Your task to perform on an android device: What's the latest news in cosmology? Image 0: 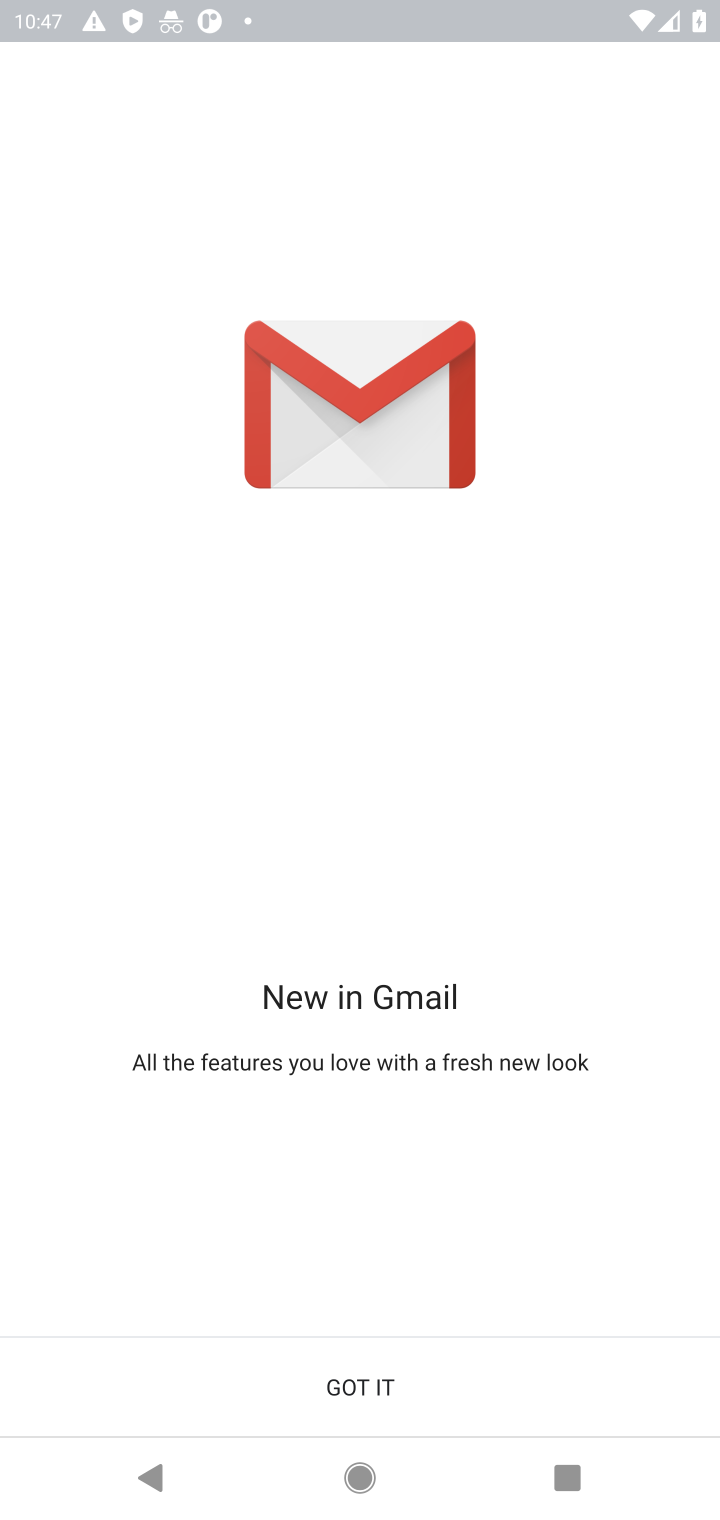
Step 0: press home button
Your task to perform on an android device: What's the latest news in cosmology? Image 1: 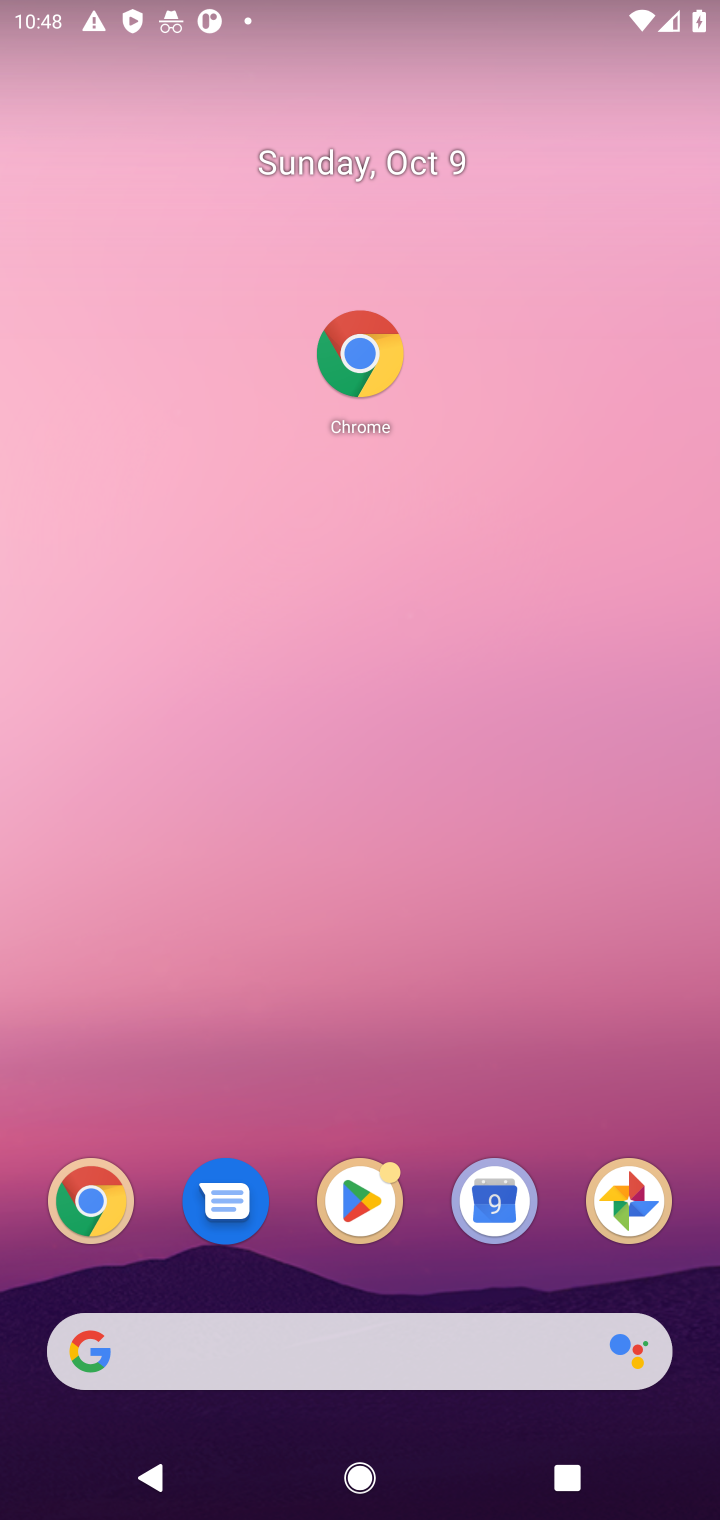
Step 1: click (79, 1190)
Your task to perform on an android device: What's the latest news in cosmology? Image 2: 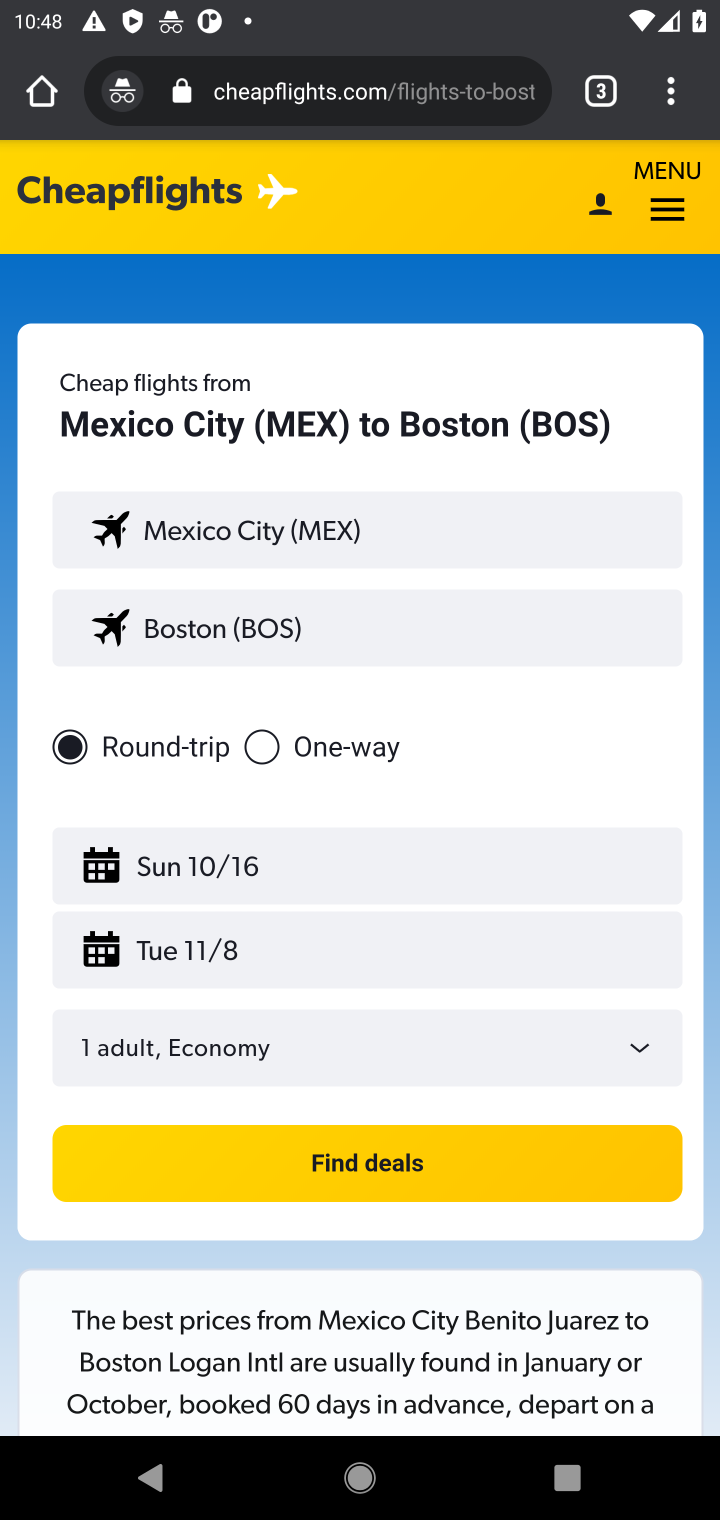
Step 2: click (343, 101)
Your task to perform on an android device: What's the latest news in cosmology? Image 3: 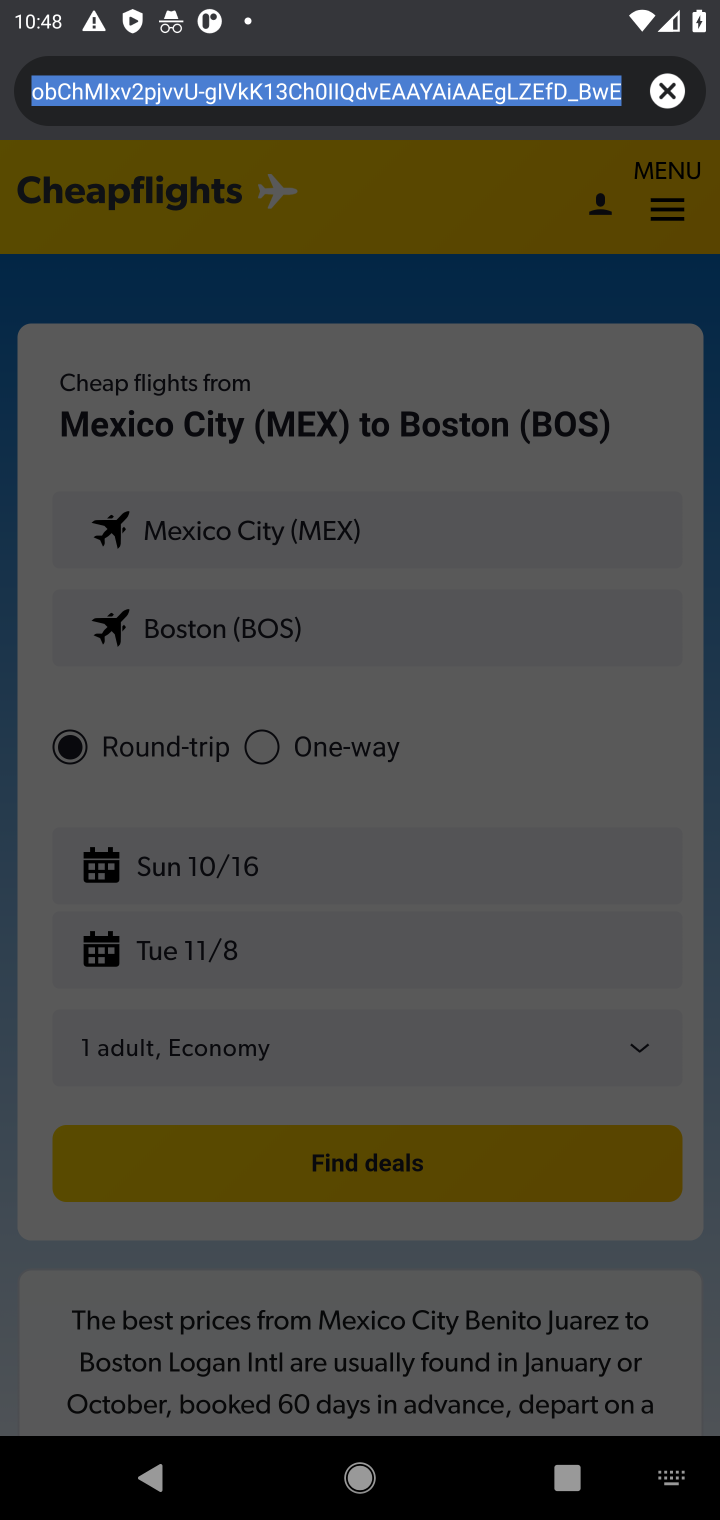
Step 3: type "What's the latest news in cosmology?"
Your task to perform on an android device: What's the latest news in cosmology? Image 4: 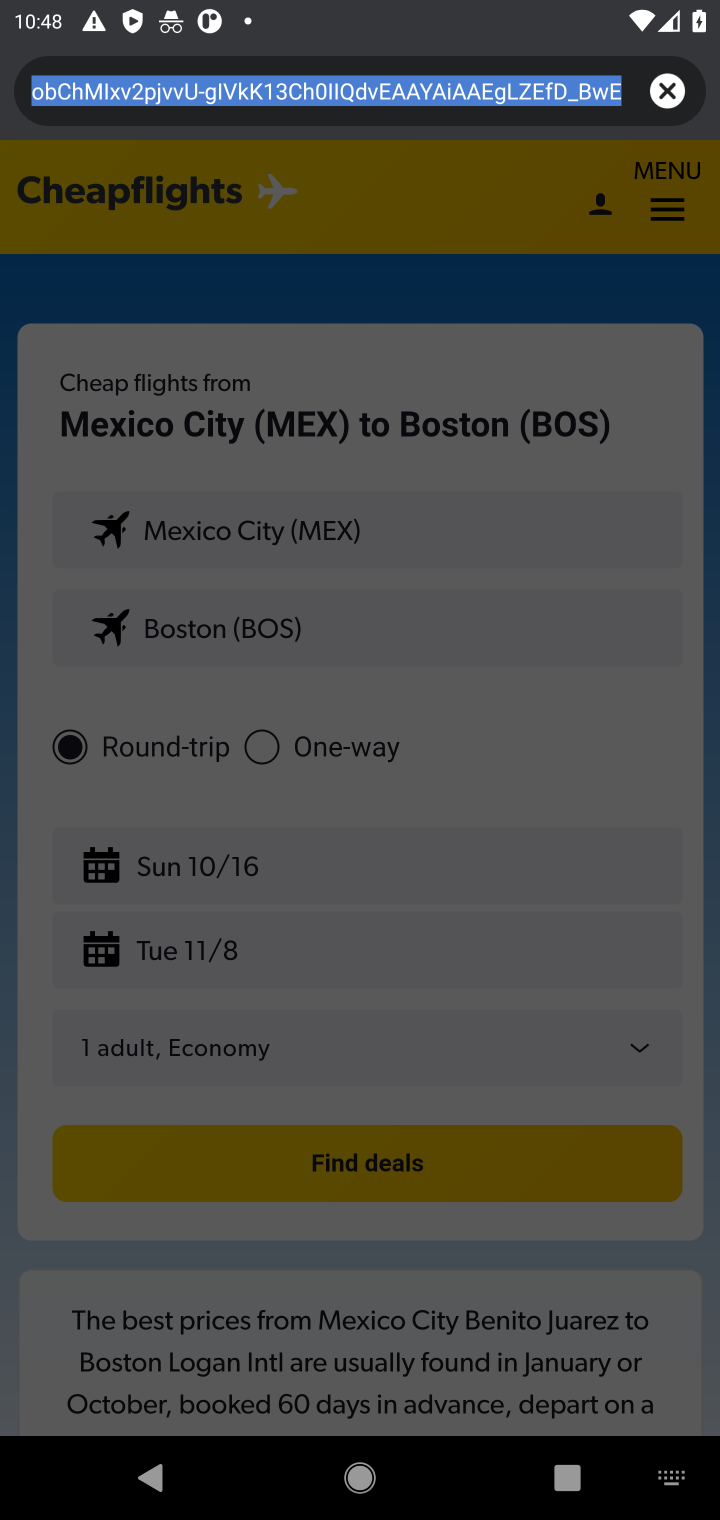
Step 4: click (353, 81)
Your task to perform on an android device: What's the latest news in cosmology? Image 5: 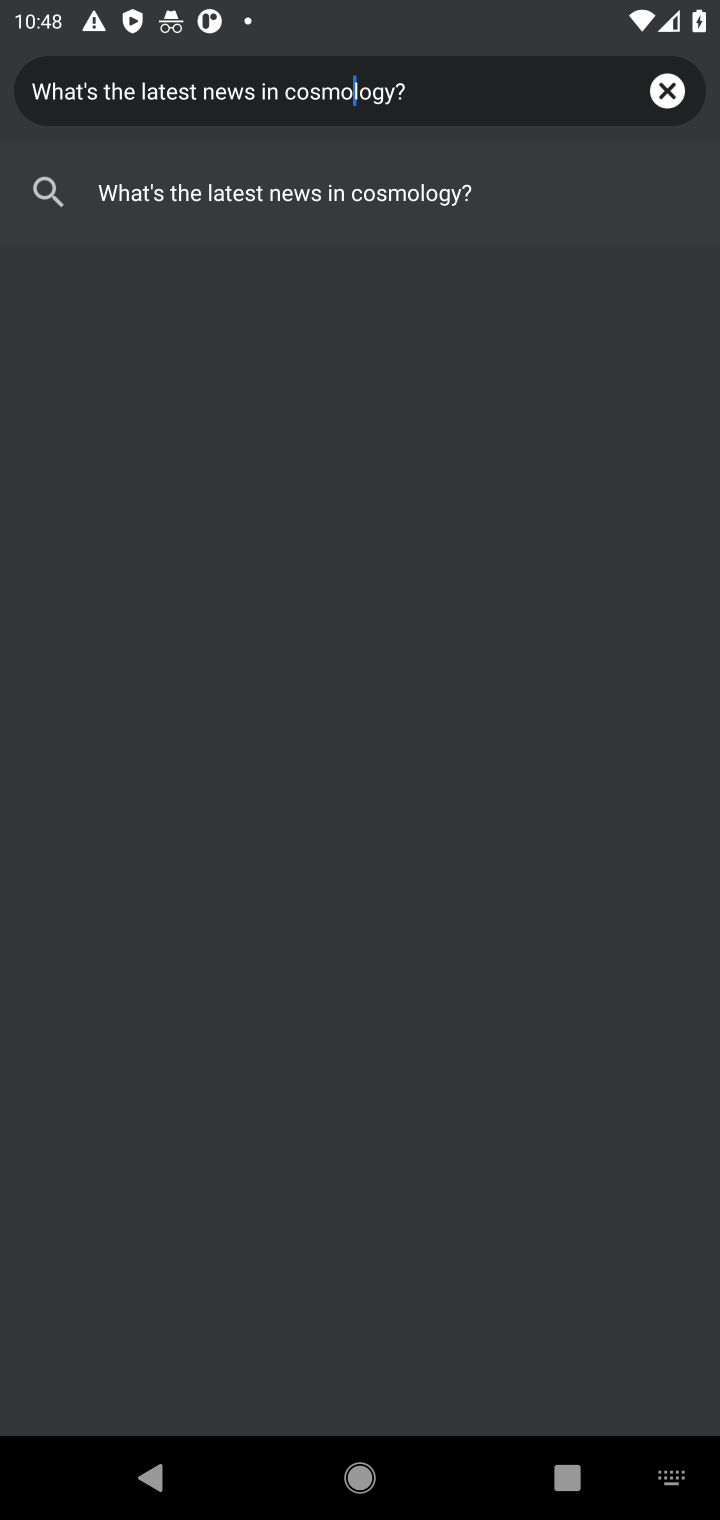
Step 5: click (380, 202)
Your task to perform on an android device: What's the latest news in cosmology? Image 6: 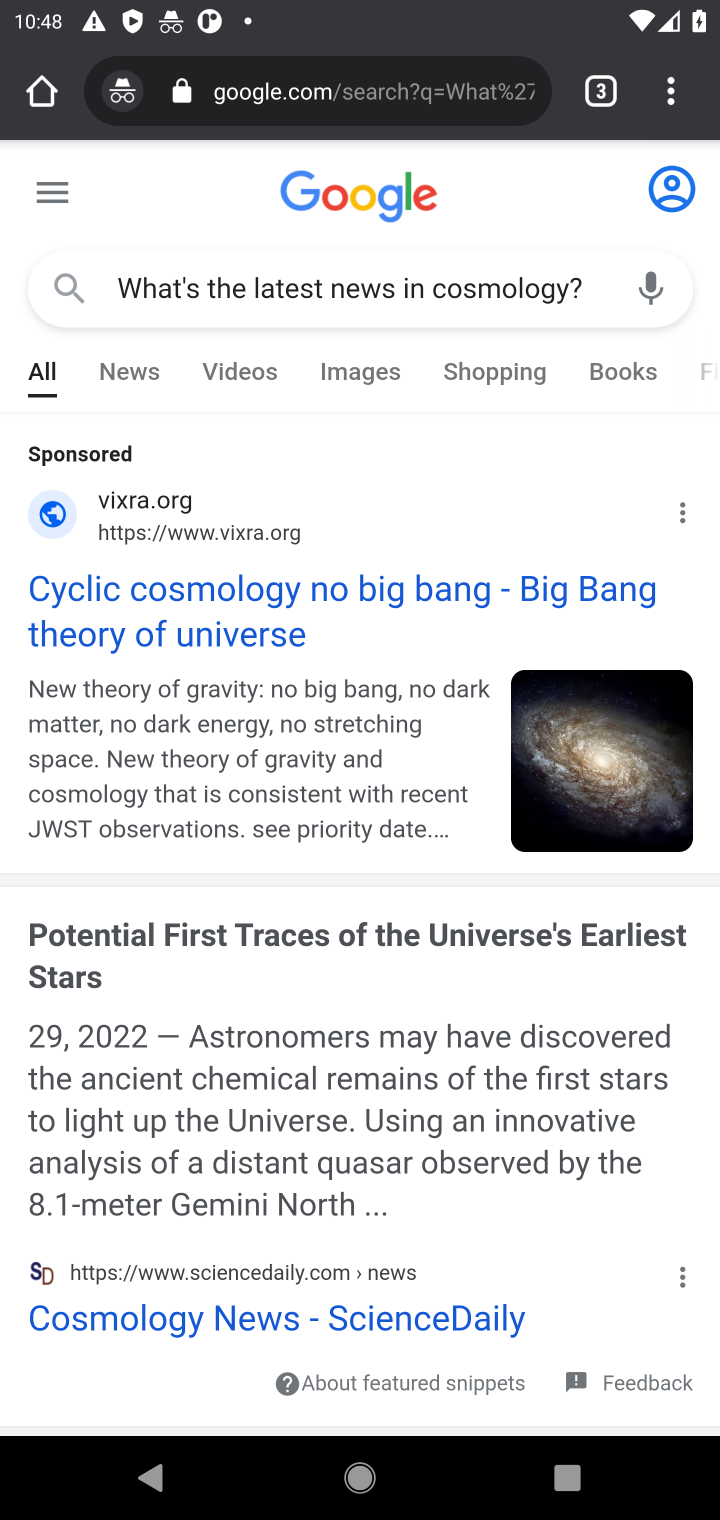
Step 6: click (310, 631)
Your task to perform on an android device: What's the latest news in cosmology? Image 7: 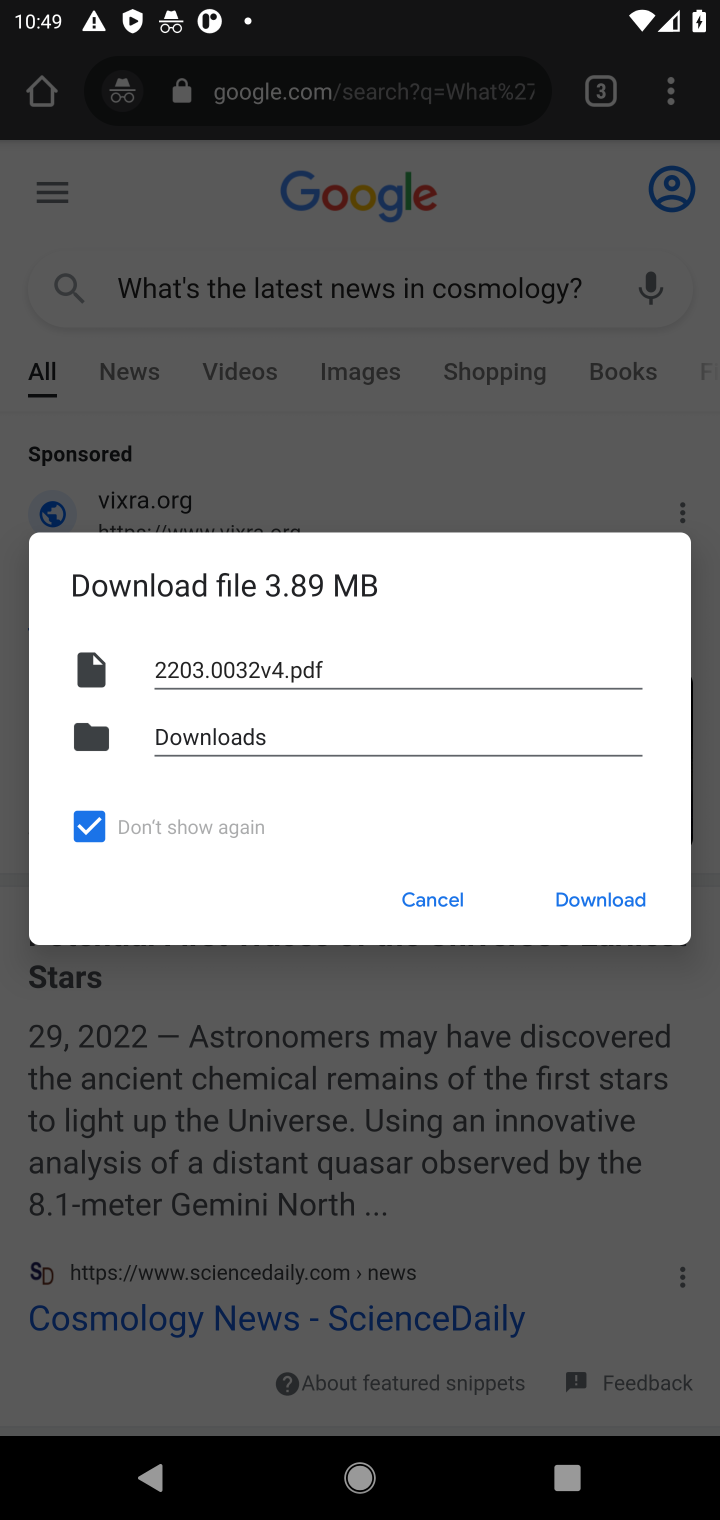
Step 7: task complete